Your task to perform on an android device: check storage Image 0: 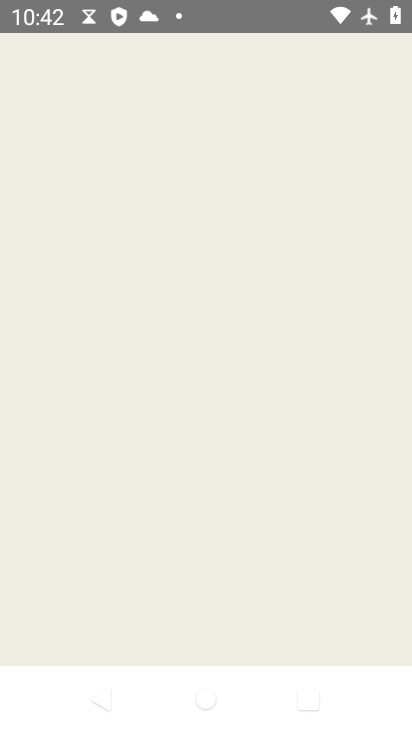
Step 0: drag from (412, 218) to (393, 363)
Your task to perform on an android device: check storage Image 1: 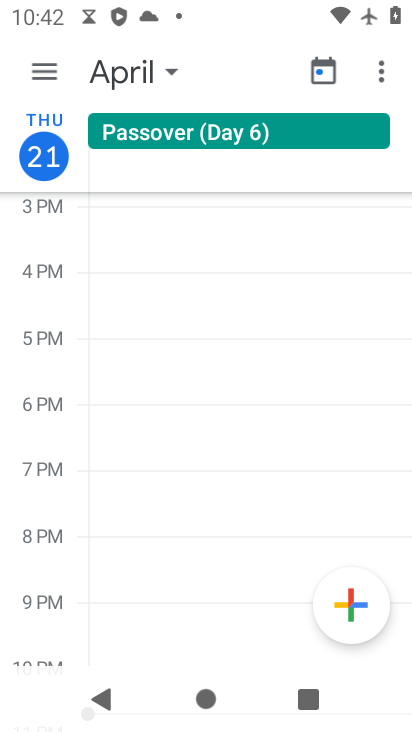
Step 1: press home button
Your task to perform on an android device: check storage Image 2: 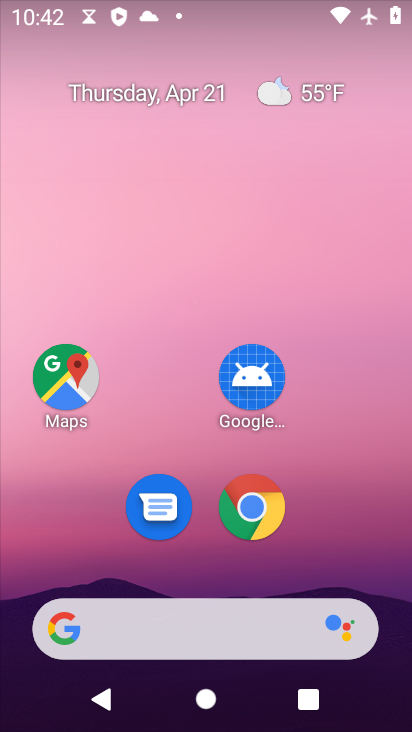
Step 2: drag from (341, 437) to (342, 129)
Your task to perform on an android device: check storage Image 3: 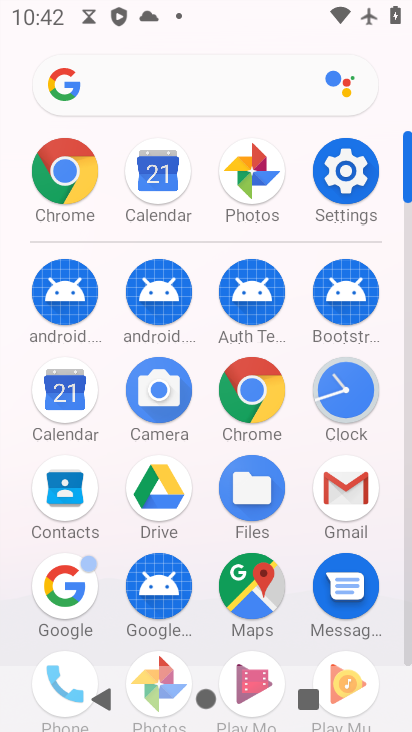
Step 3: click (340, 171)
Your task to perform on an android device: check storage Image 4: 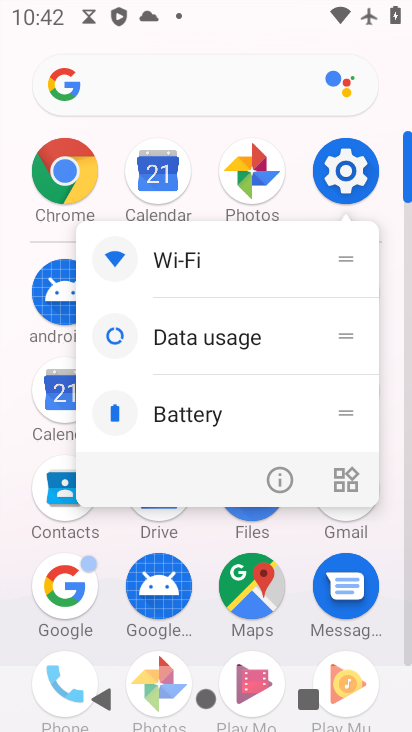
Step 4: click (340, 171)
Your task to perform on an android device: check storage Image 5: 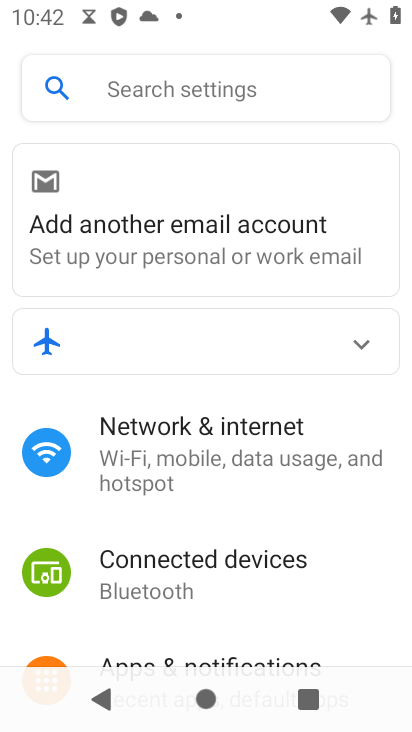
Step 5: drag from (242, 588) to (309, 94)
Your task to perform on an android device: check storage Image 6: 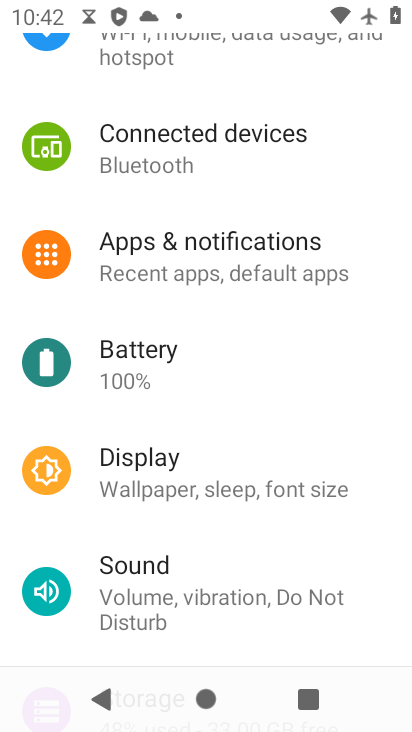
Step 6: drag from (163, 562) to (313, 151)
Your task to perform on an android device: check storage Image 7: 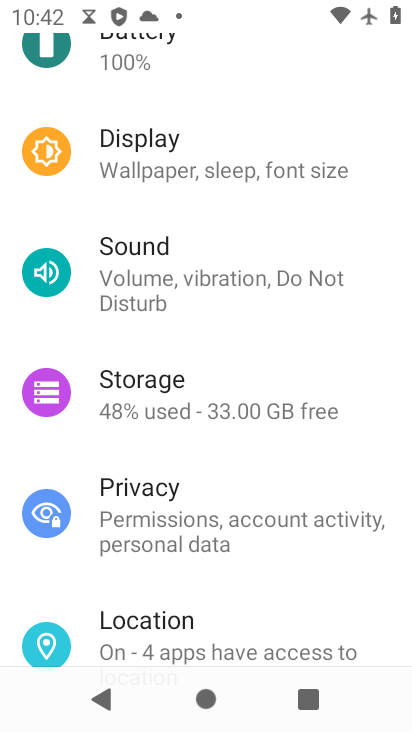
Step 7: click (249, 383)
Your task to perform on an android device: check storage Image 8: 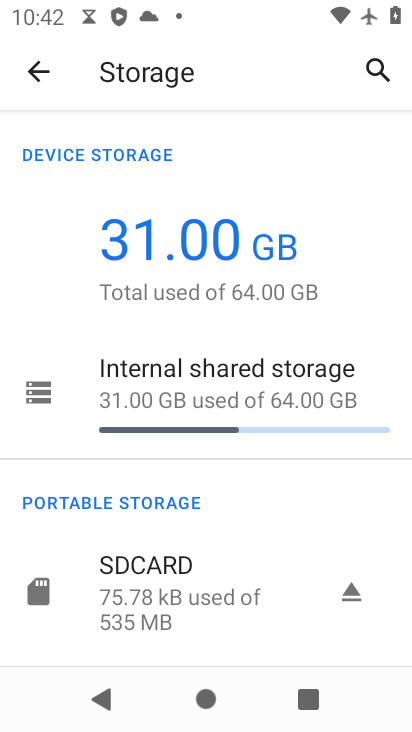
Step 8: task complete